Your task to perform on an android device: turn on airplane mode Image 0: 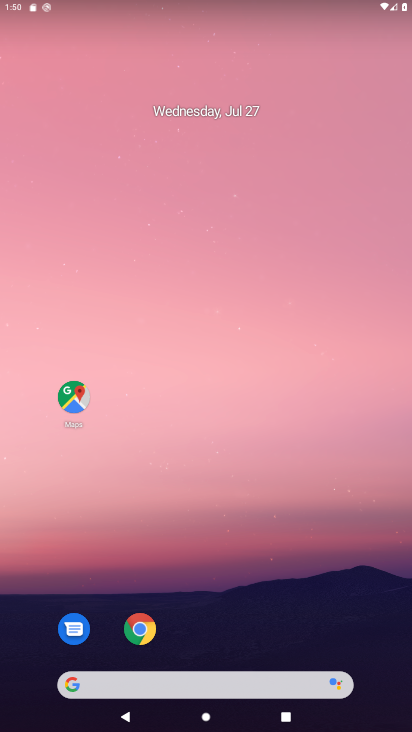
Step 0: drag from (274, 587) to (263, 38)
Your task to perform on an android device: turn on airplane mode Image 1: 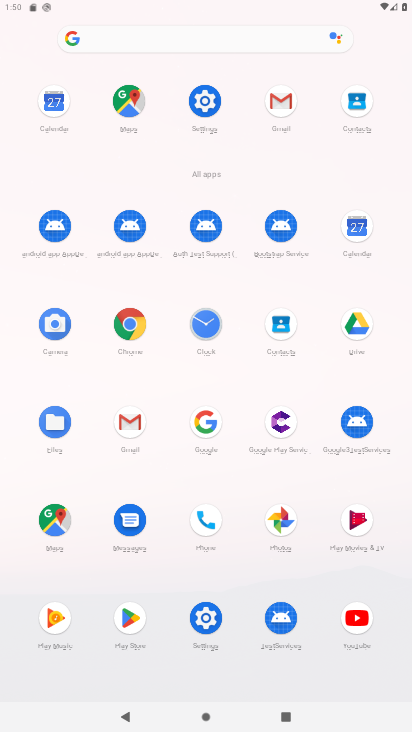
Step 1: click (211, 98)
Your task to perform on an android device: turn on airplane mode Image 2: 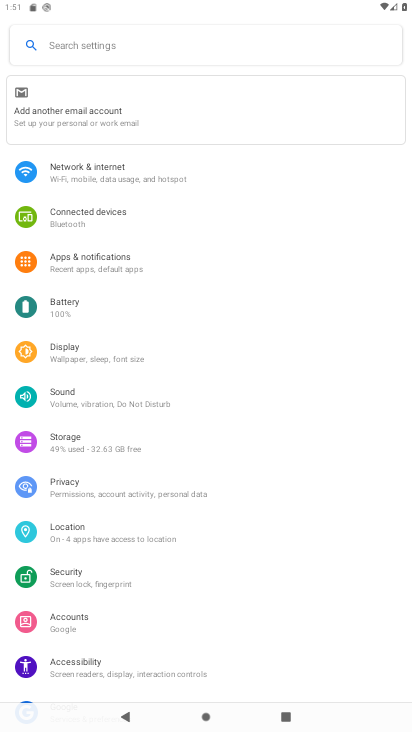
Step 2: click (162, 176)
Your task to perform on an android device: turn on airplane mode Image 3: 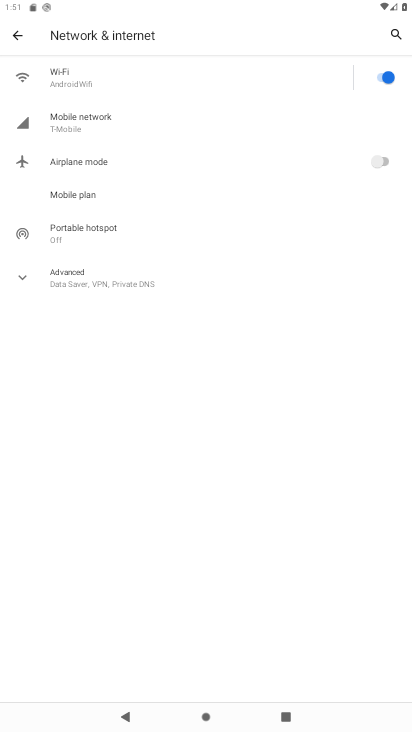
Step 3: click (389, 159)
Your task to perform on an android device: turn on airplane mode Image 4: 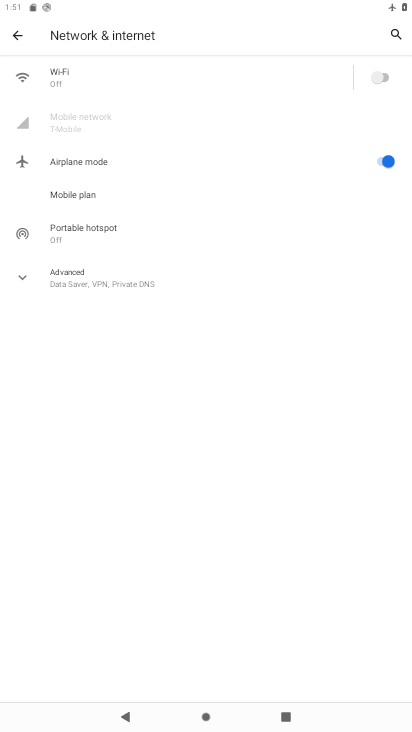
Step 4: task complete